Your task to perform on an android device: see creations saved in the google photos Image 0: 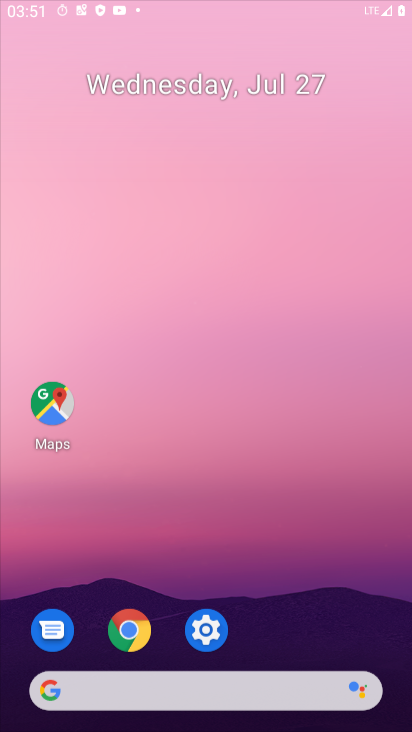
Step 0: drag from (273, 600) to (275, 256)
Your task to perform on an android device: see creations saved in the google photos Image 1: 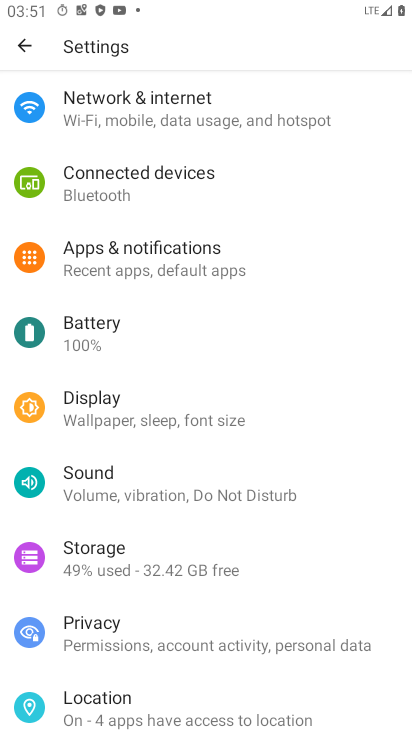
Step 1: press back button
Your task to perform on an android device: see creations saved in the google photos Image 2: 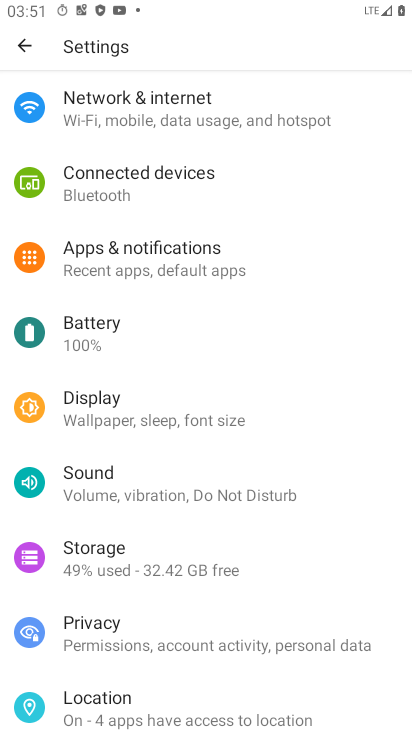
Step 2: press back button
Your task to perform on an android device: see creations saved in the google photos Image 3: 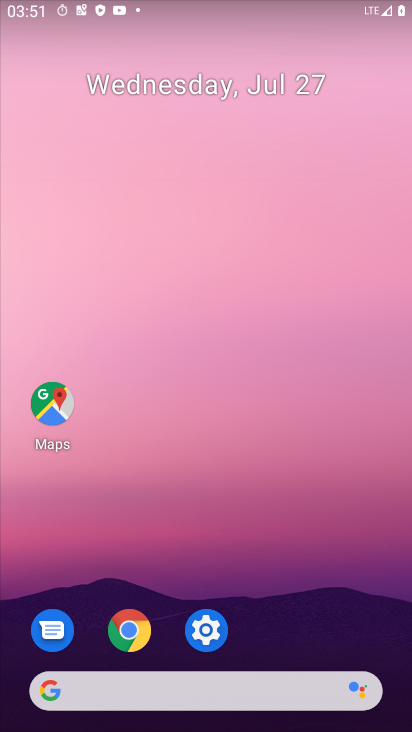
Step 3: drag from (192, 427) to (155, 217)
Your task to perform on an android device: see creations saved in the google photos Image 4: 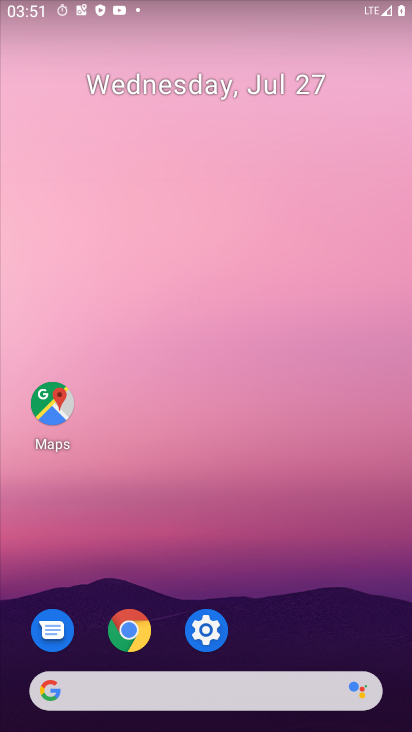
Step 4: drag from (264, 568) to (221, 314)
Your task to perform on an android device: see creations saved in the google photos Image 5: 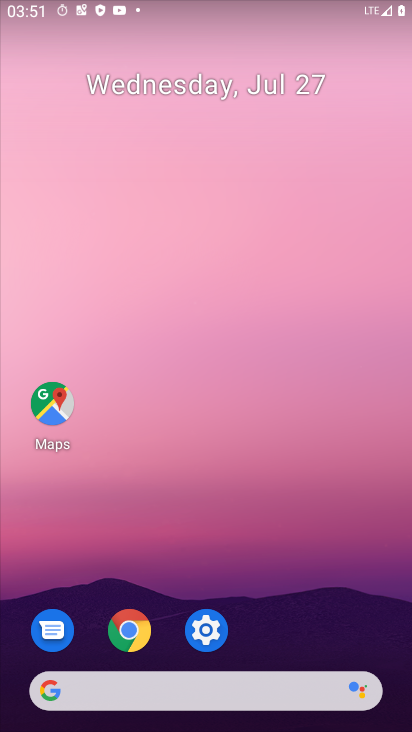
Step 5: drag from (248, 634) to (256, 226)
Your task to perform on an android device: see creations saved in the google photos Image 6: 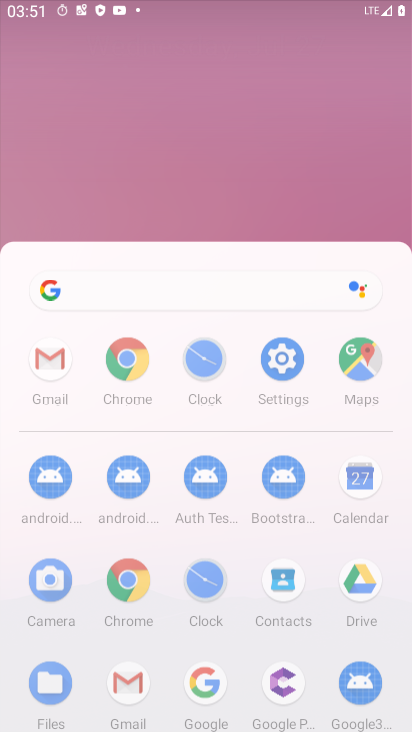
Step 6: drag from (314, 513) to (314, 244)
Your task to perform on an android device: see creations saved in the google photos Image 7: 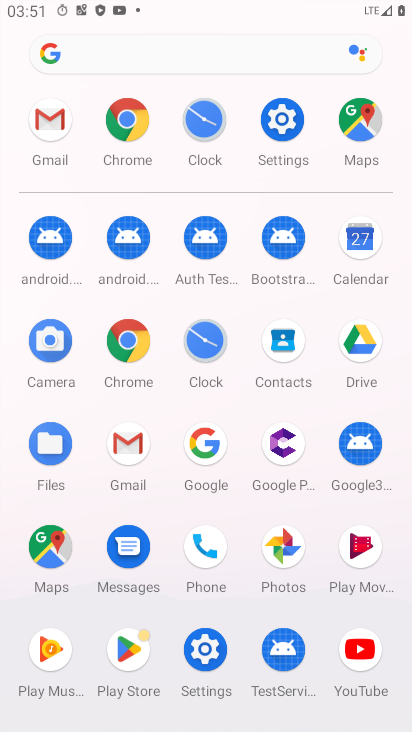
Step 7: drag from (260, 440) to (234, 221)
Your task to perform on an android device: see creations saved in the google photos Image 8: 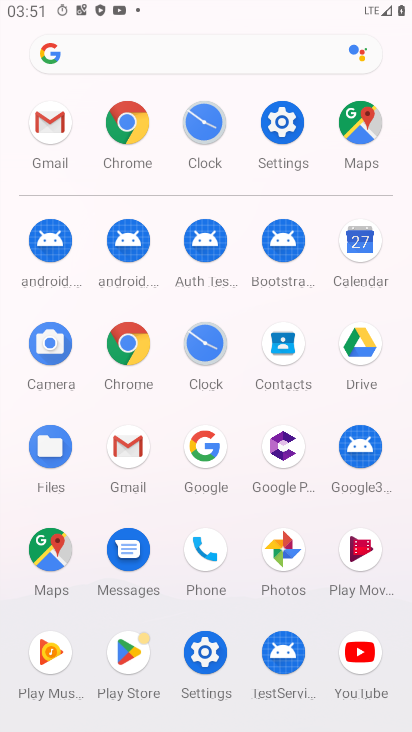
Step 8: click (285, 549)
Your task to perform on an android device: see creations saved in the google photos Image 9: 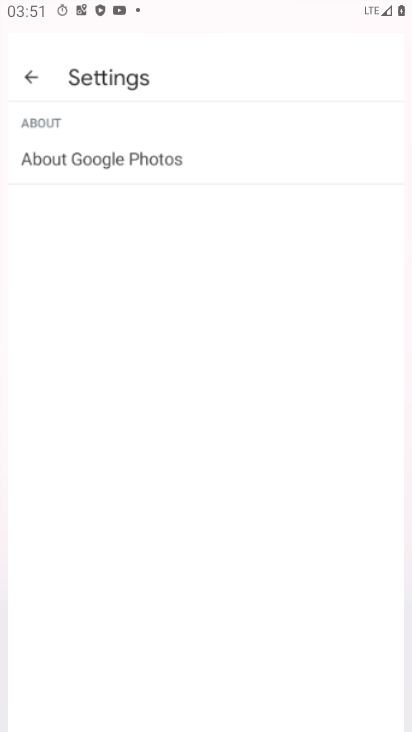
Step 9: click (286, 549)
Your task to perform on an android device: see creations saved in the google photos Image 10: 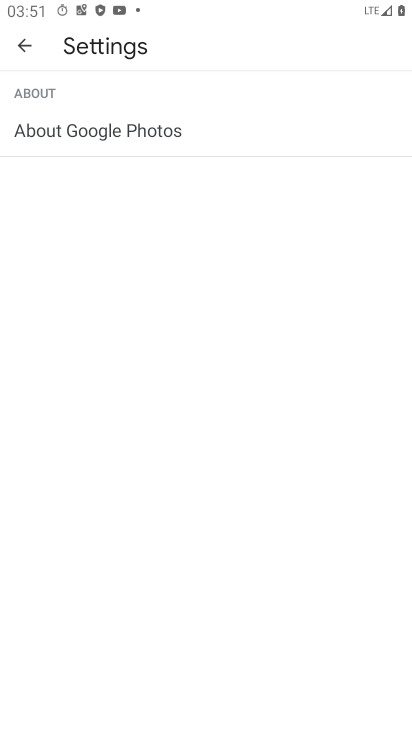
Step 10: click (101, 132)
Your task to perform on an android device: see creations saved in the google photos Image 11: 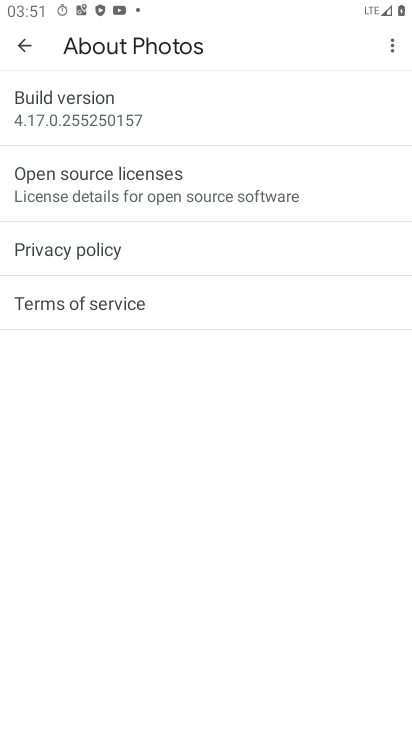
Step 11: task complete